Your task to perform on an android device: Open the calendar app, open the side menu, and click the "Day" option Image 0: 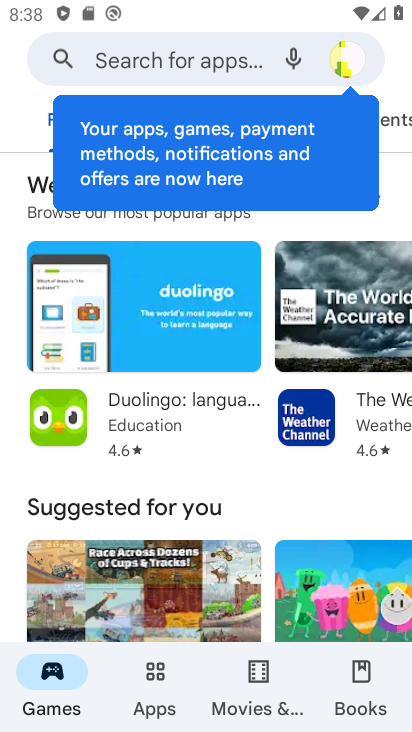
Step 0: press home button
Your task to perform on an android device: Open the calendar app, open the side menu, and click the "Day" option Image 1: 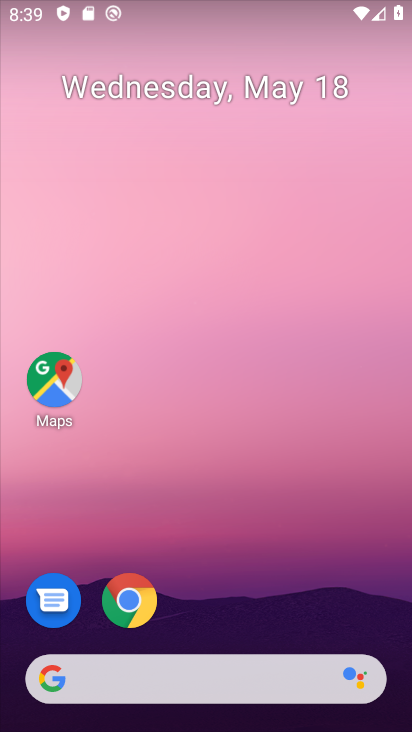
Step 1: drag from (72, 295) to (161, 64)
Your task to perform on an android device: Open the calendar app, open the side menu, and click the "Day" option Image 2: 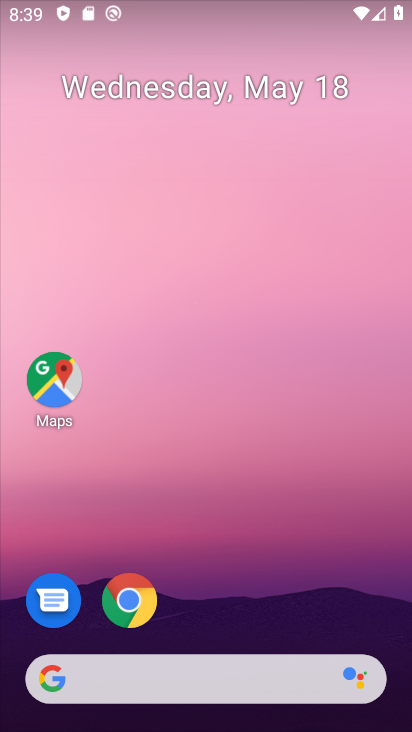
Step 2: drag from (2, 679) to (212, 110)
Your task to perform on an android device: Open the calendar app, open the side menu, and click the "Day" option Image 3: 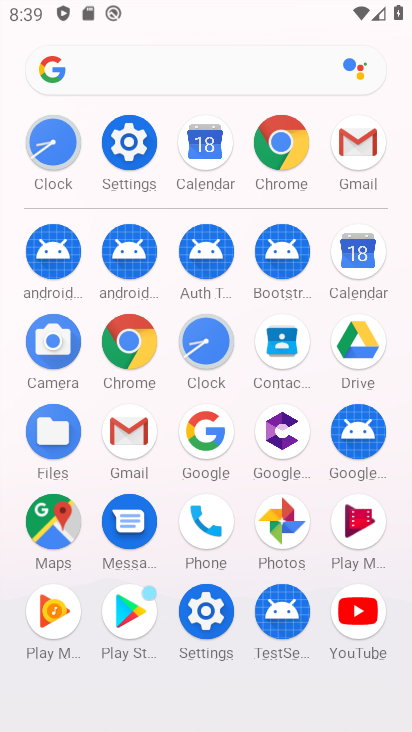
Step 3: click (363, 269)
Your task to perform on an android device: Open the calendar app, open the side menu, and click the "Day" option Image 4: 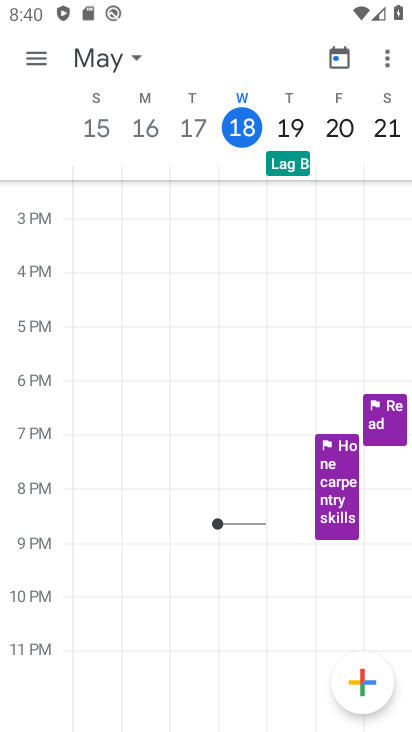
Step 4: click (20, 50)
Your task to perform on an android device: Open the calendar app, open the side menu, and click the "Day" option Image 5: 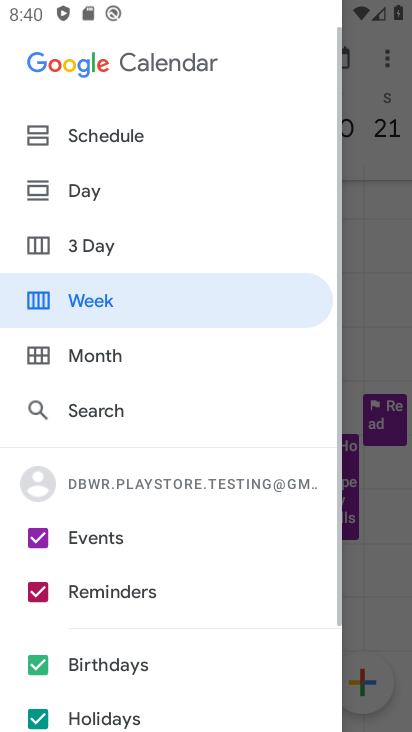
Step 5: click (105, 179)
Your task to perform on an android device: Open the calendar app, open the side menu, and click the "Day" option Image 6: 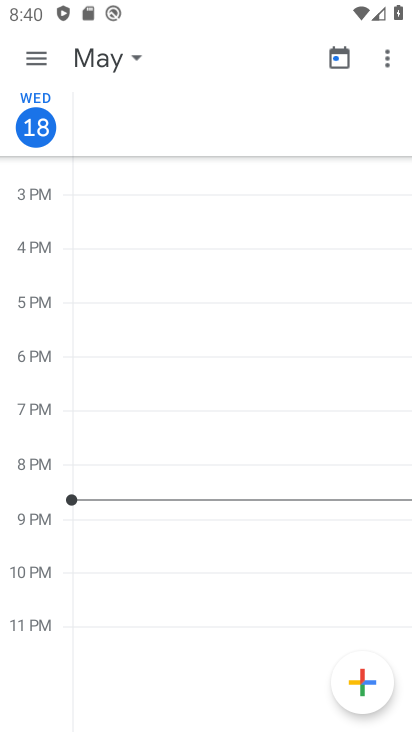
Step 6: task complete